Your task to perform on an android device: Open Youtube and go to the subscriptions tab Image 0: 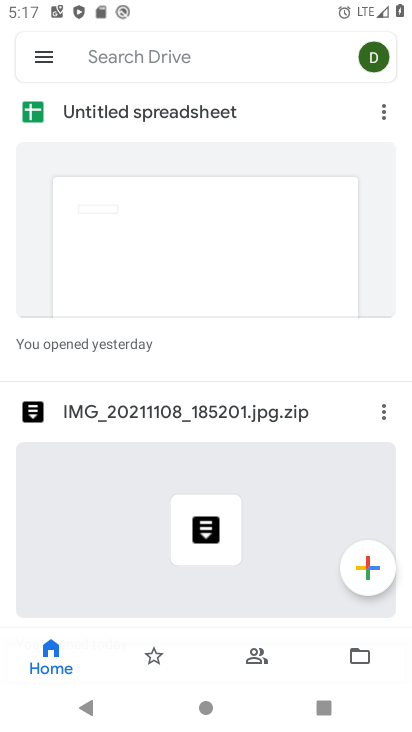
Step 0: press home button
Your task to perform on an android device: Open Youtube and go to the subscriptions tab Image 1: 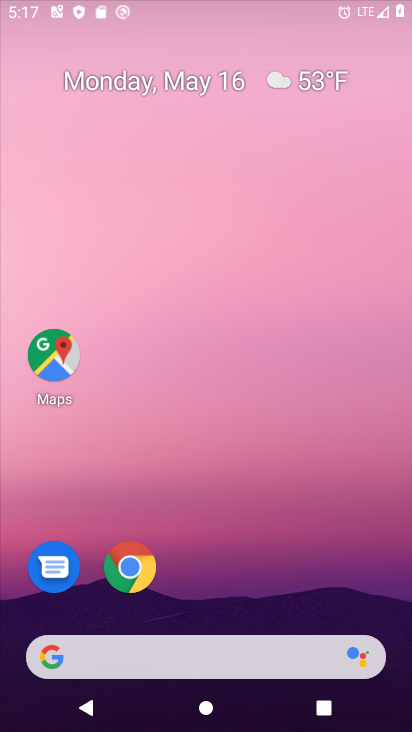
Step 1: drag from (306, 12) to (295, 698)
Your task to perform on an android device: Open Youtube and go to the subscriptions tab Image 2: 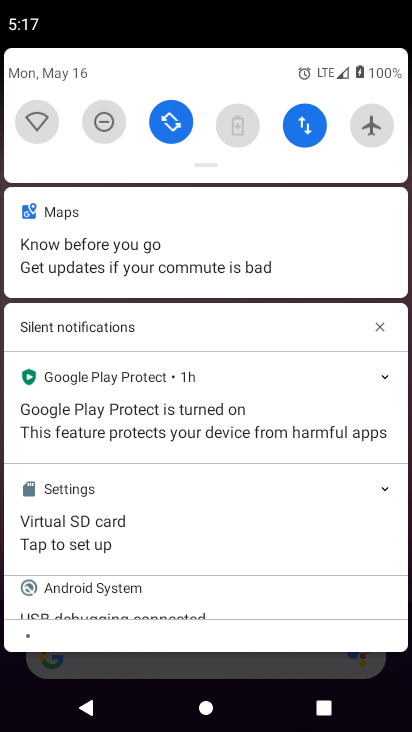
Step 2: drag from (289, 685) to (319, 71)
Your task to perform on an android device: Open Youtube and go to the subscriptions tab Image 3: 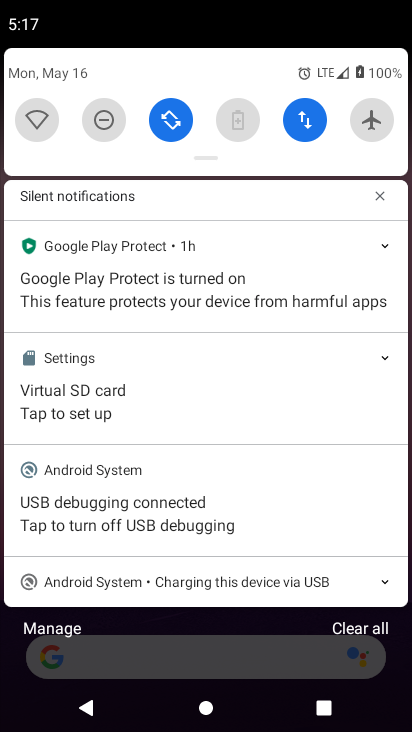
Step 3: drag from (280, 655) to (278, 123)
Your task to perform on an android device: Open Youtube and go to the subscriptions tab Image 4: 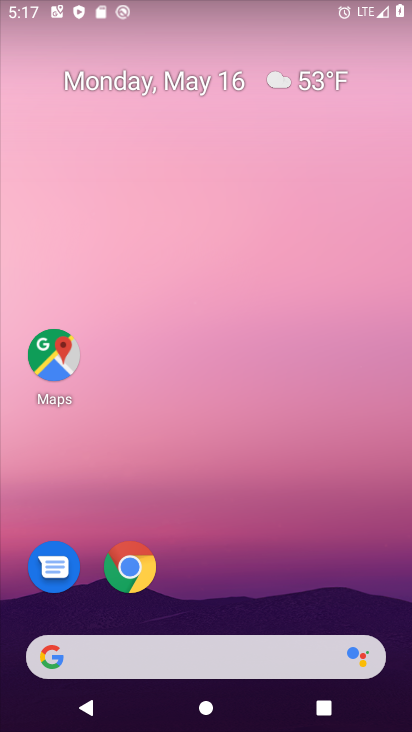
Step 4: drag from (283, 491) to (302, 166)
Your task to perform on an android device: Open Youtube and go to the subscriptions tab Image 5: 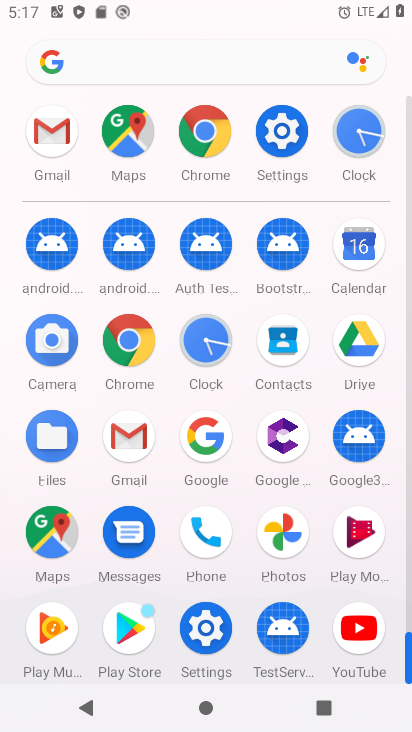
Step 5: drag from (313, 562) to (302, 395)
Your task to perform on an android device: Open Youtube and go to the subscriptions tab Image 6: 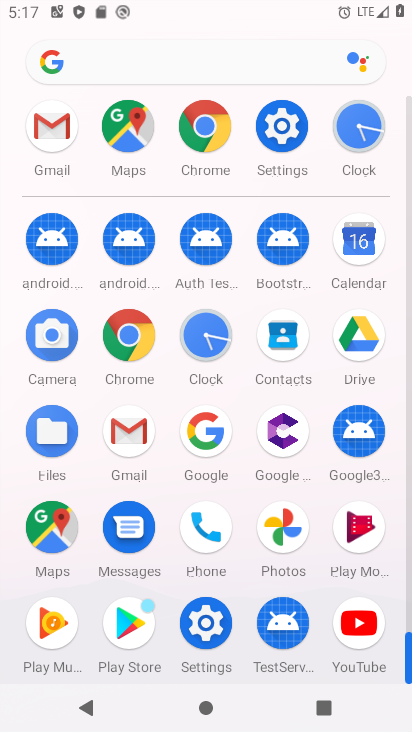
Step 6: click (361, 619)
Your task to perform on an android device: Open Youtube and go to the subscriptions tab Image 7: 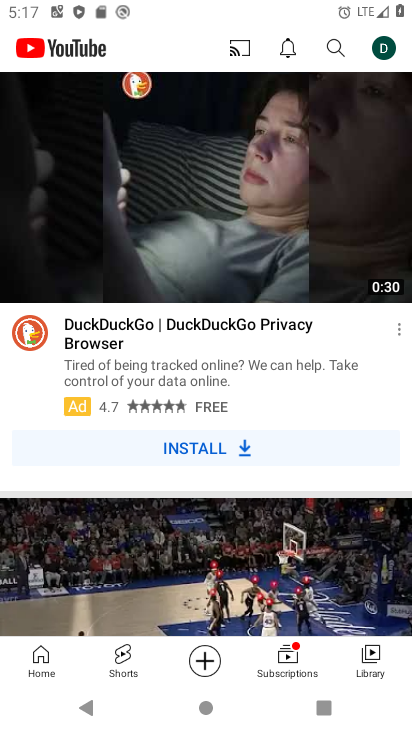
Step 7: click (292, 654)
Your task to perform on an android device: Open Youtube and go to the subscriptions tab Image 8: 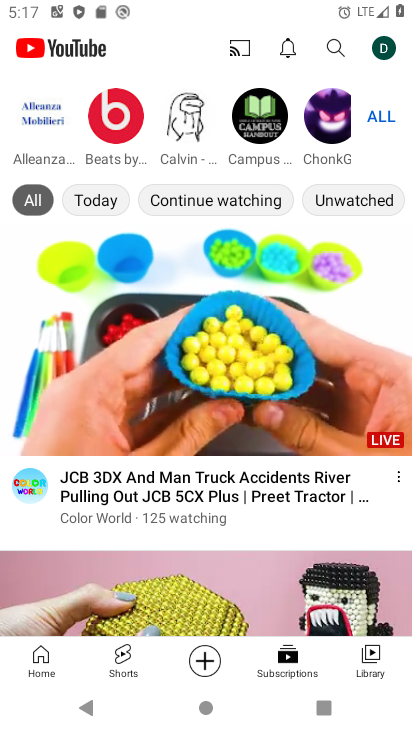
Step 8: task complete